Your task to perform on an android device: Go to privacy settings Image 0: 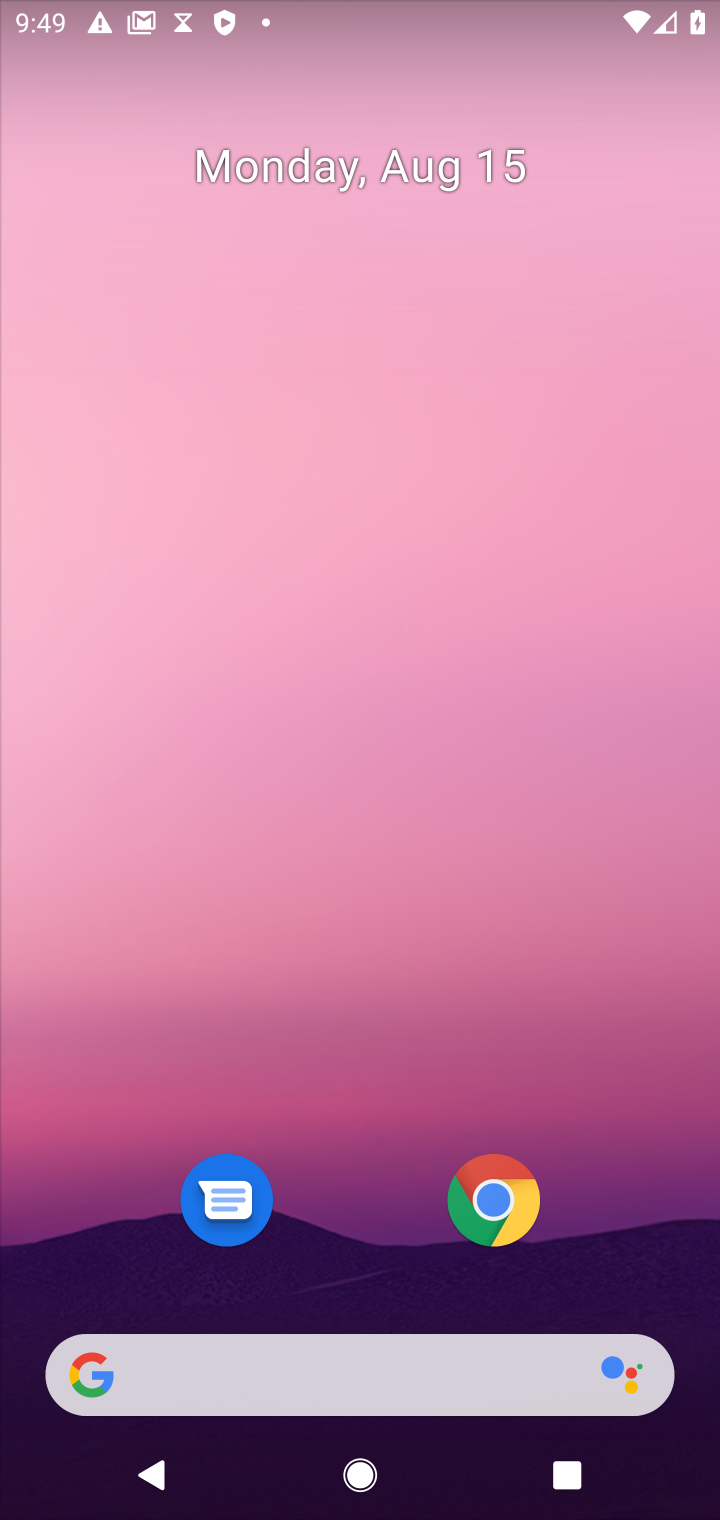
Step 0: drag from (371, 605) to (402, 262)
Your task to perform on an android device: Go to privacy settings Image 1: 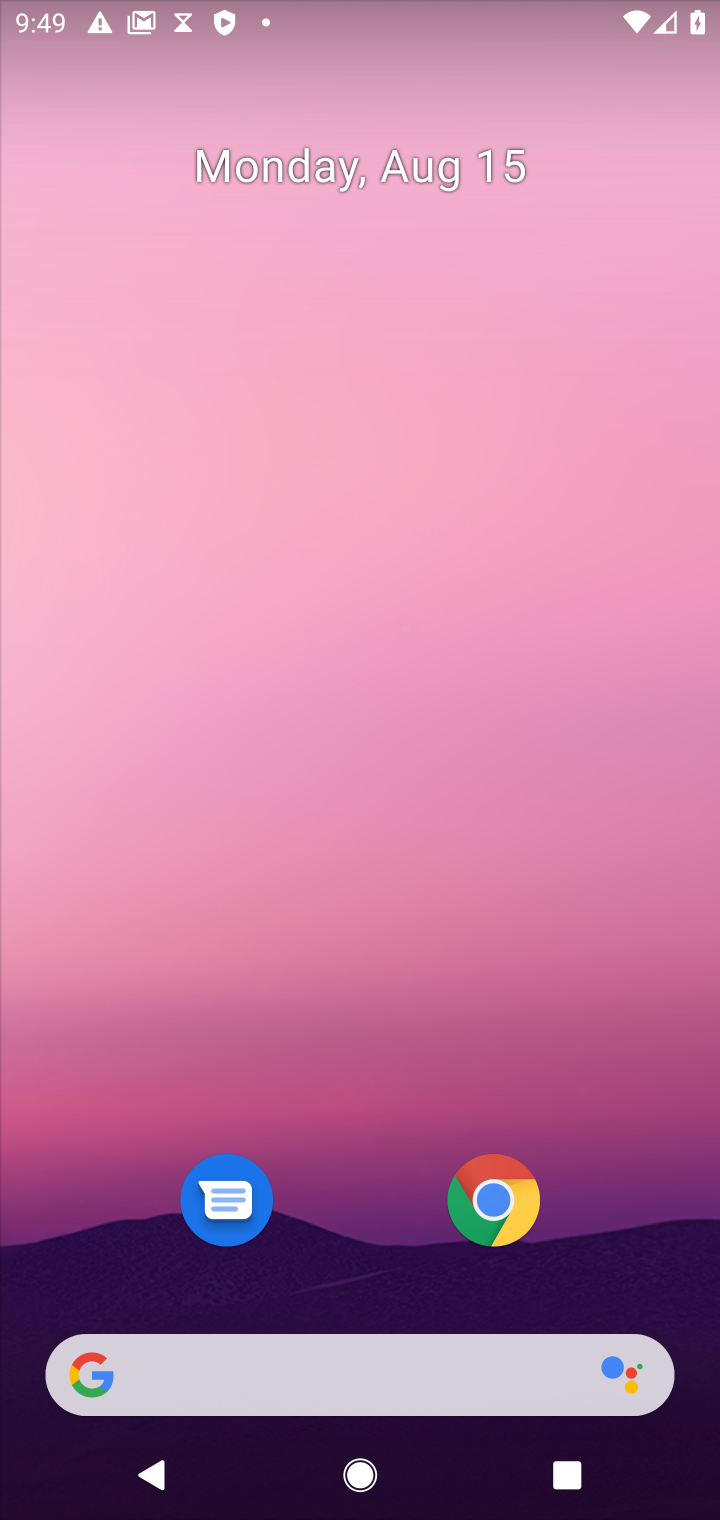
Step 1: drag from (360, 1272) to (311, 209)
Your task to perform on an android device: Go to privacy settings Image 2: 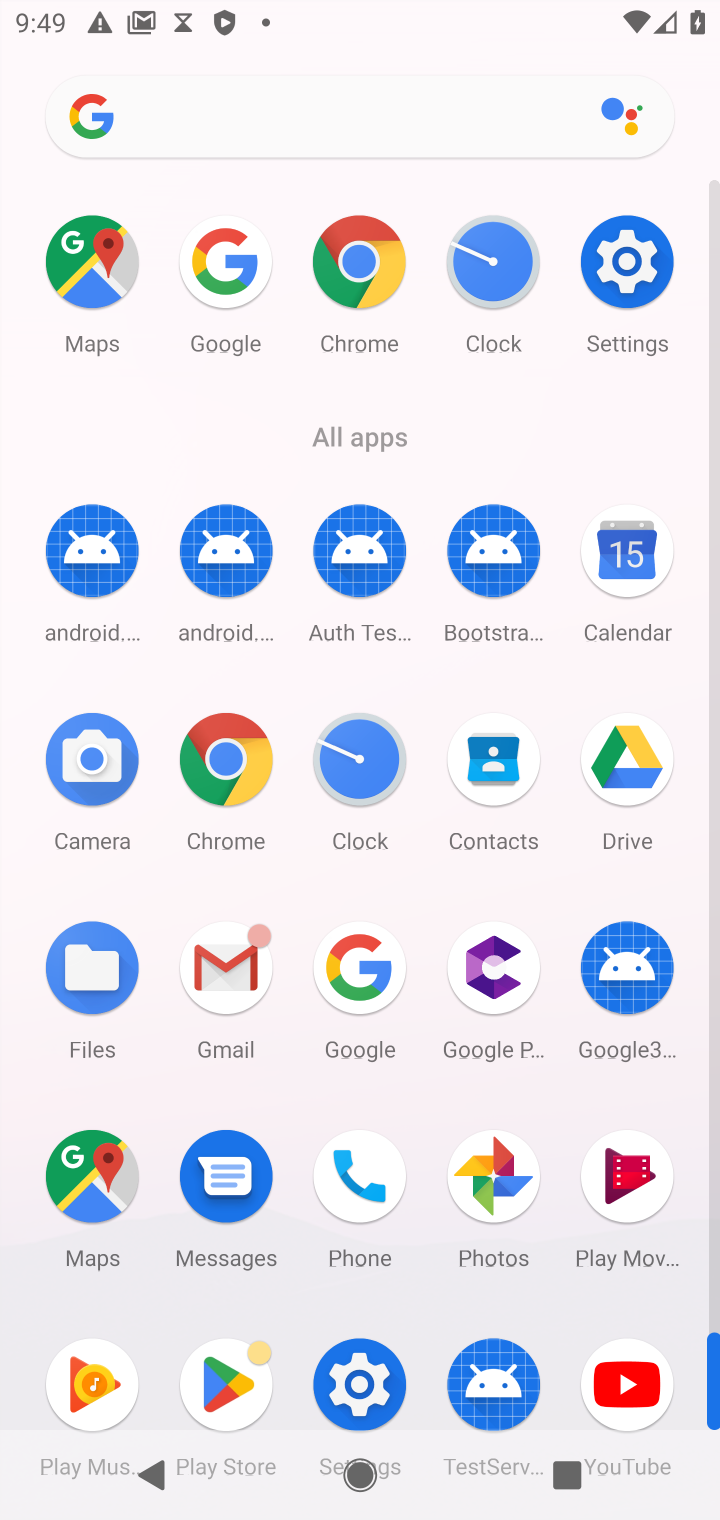
Step 2: click (614, 271)
Your task to perform on an android device: Go to privacy settings Image 3: 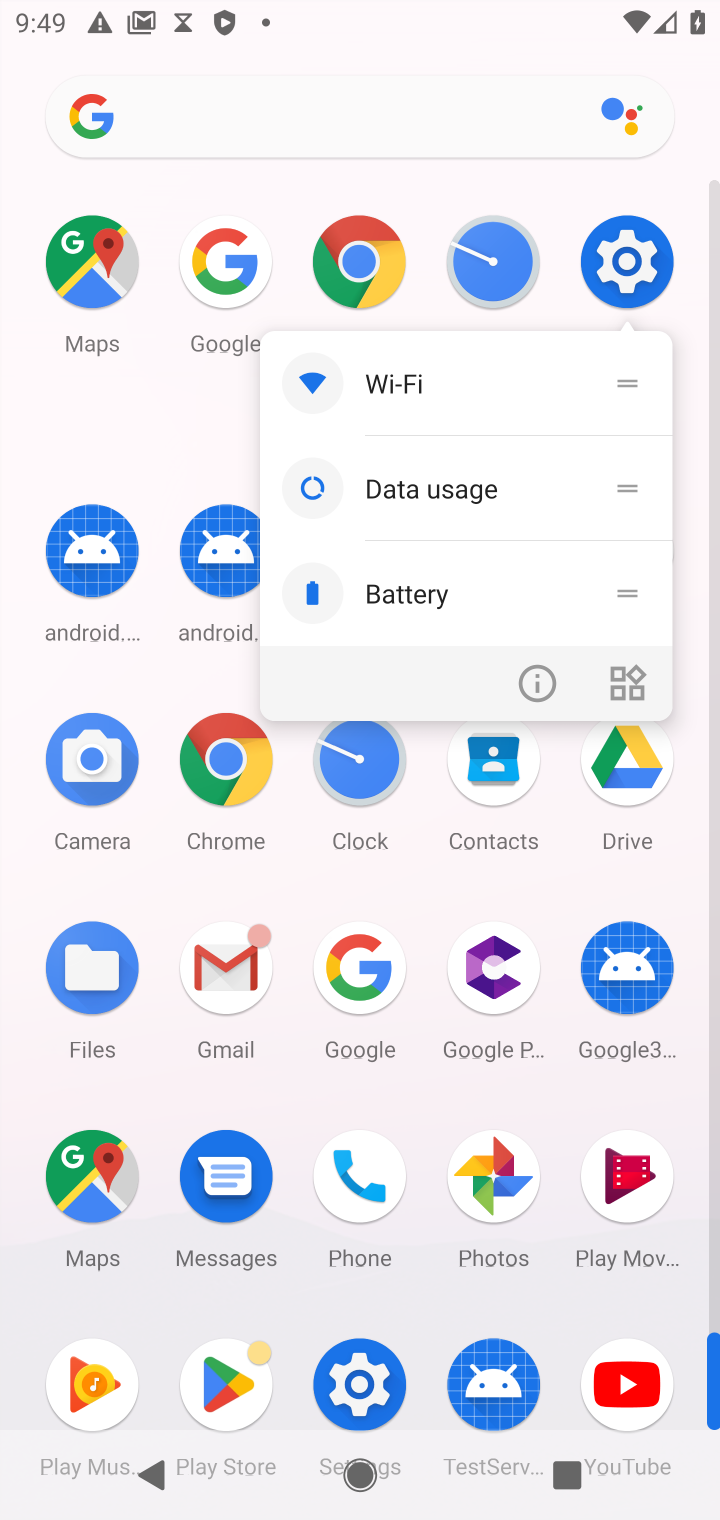
Step 3: click (647, 205)
Your task to perform on an android device: Go to privacy settings Image 4: 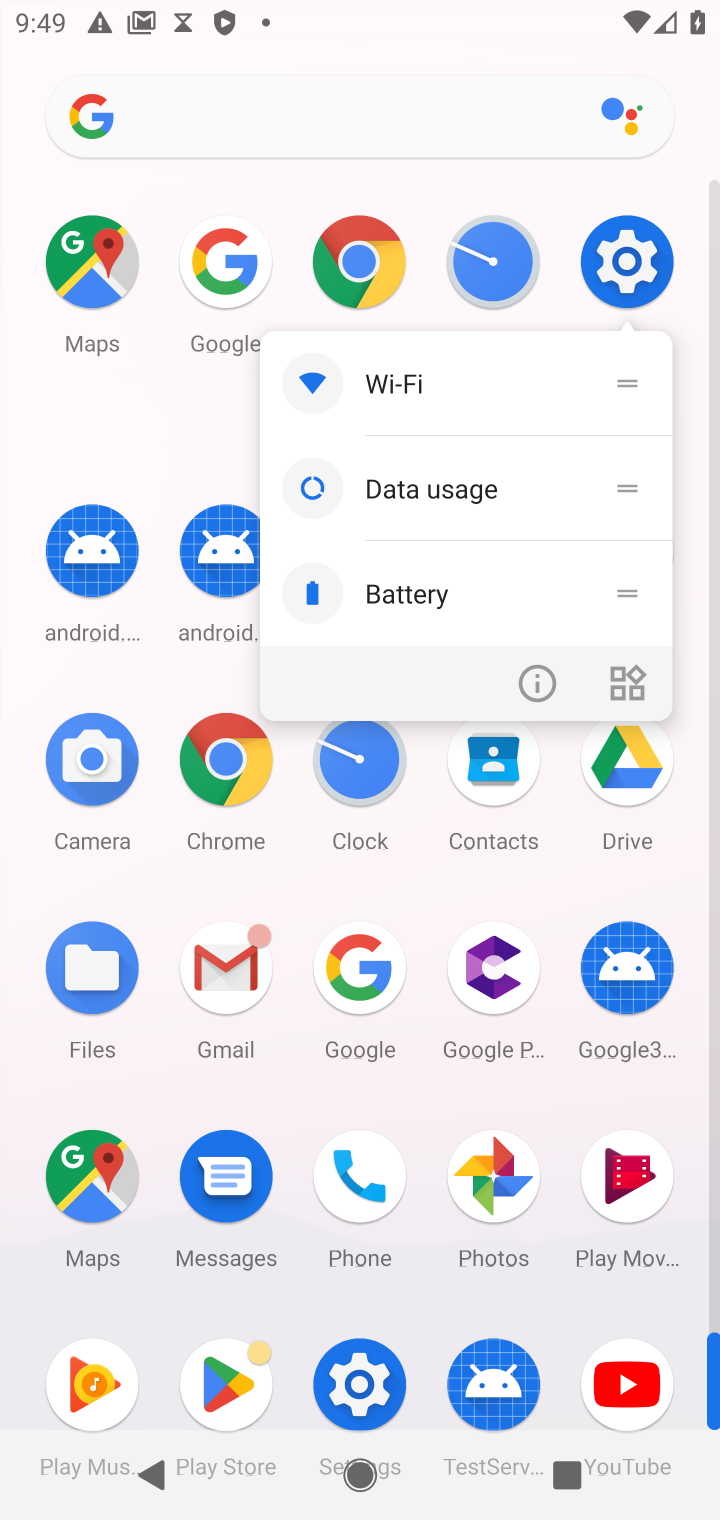
Step 4: click (642, 246)
Your task to perform on an android device: Go to privacy settings Image 5: 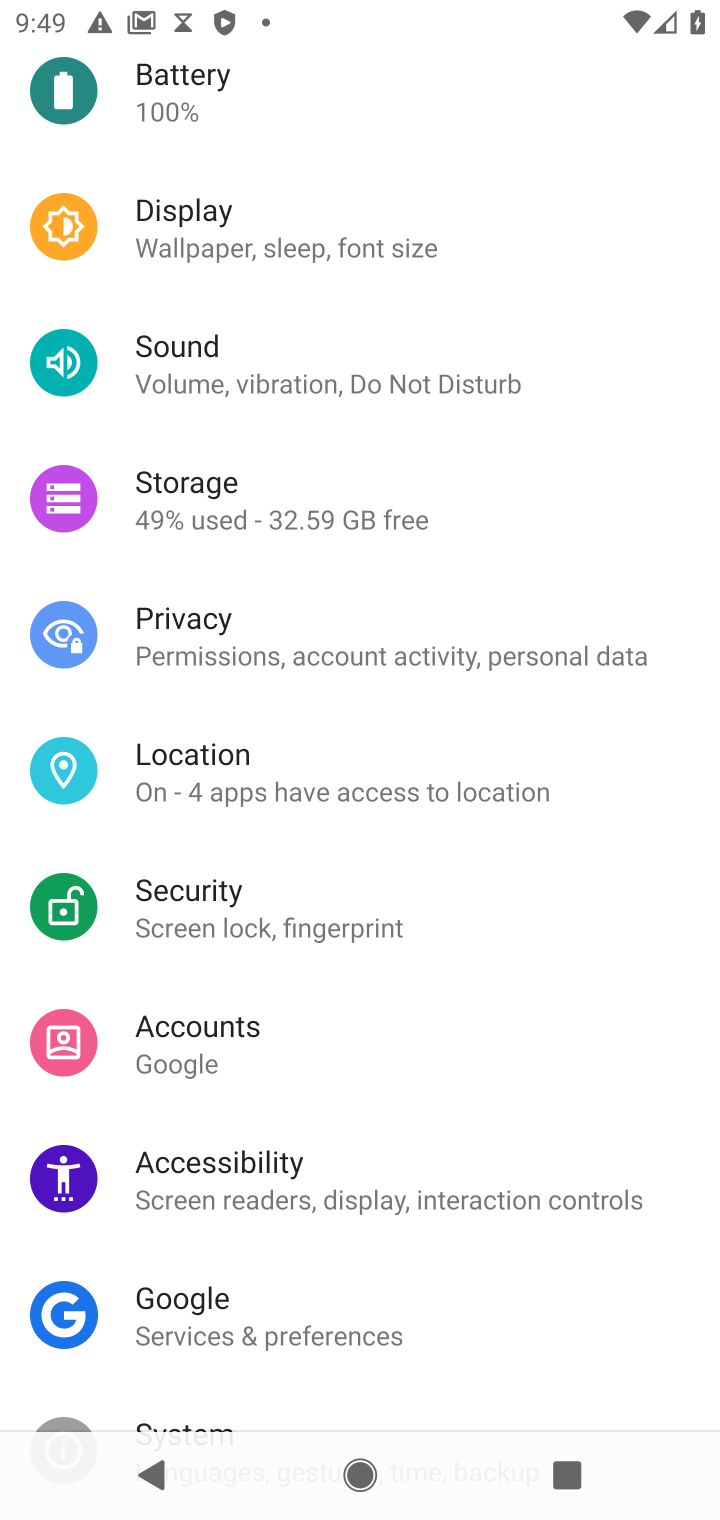
Step 5: click (282, 644)
Your task to perform on an android device: Go to privacy settings Image 6: 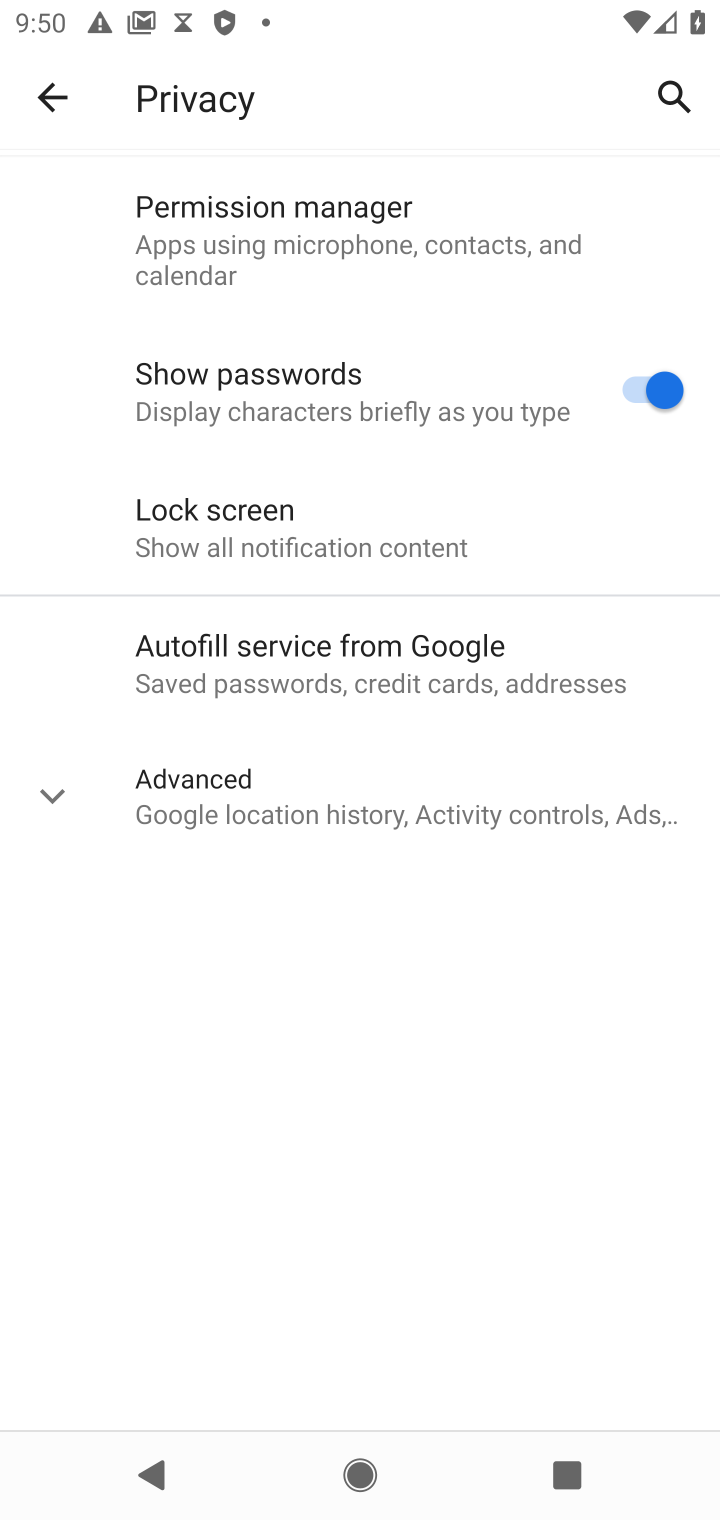
Step 6: task complete